Your task to perform on an android device: turn notification dots off Image 0: 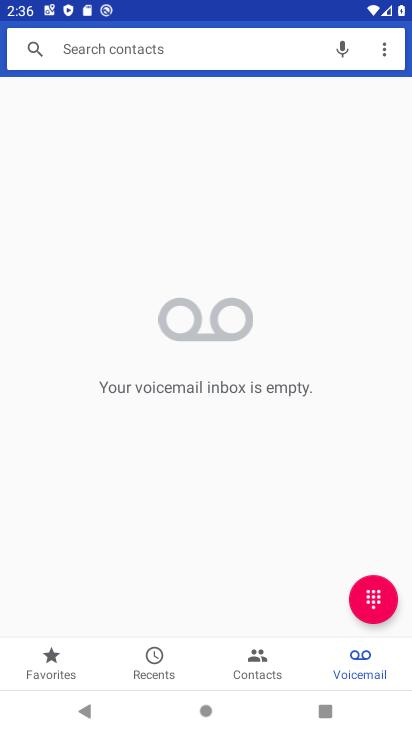
Step 0: press home button
Your task to perform on an android device: turn notification dots off Image 1: 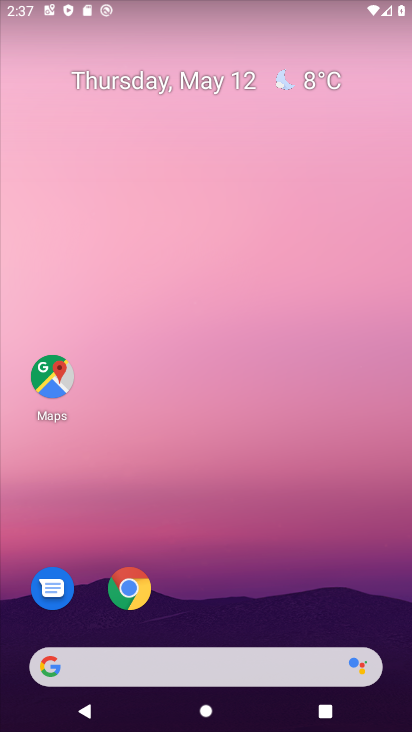
Step 1: drag from (293, 595) to (229, 2)
Your task to perform on an android device: turn notification dots off Image 2: 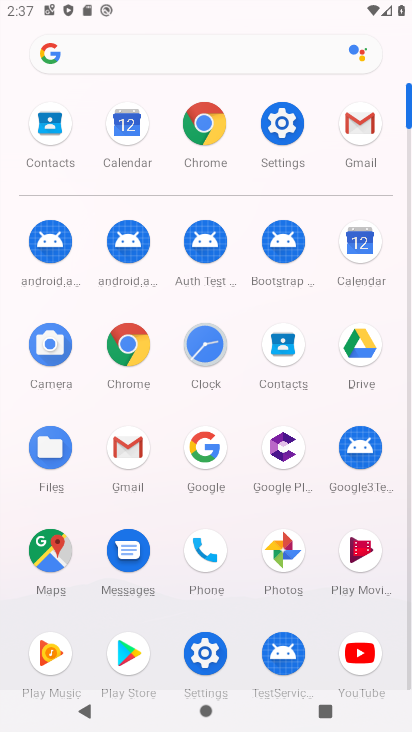
Step 2: click (272, 105)
Your task to perform on an android device: turn notification dots off Image 3: 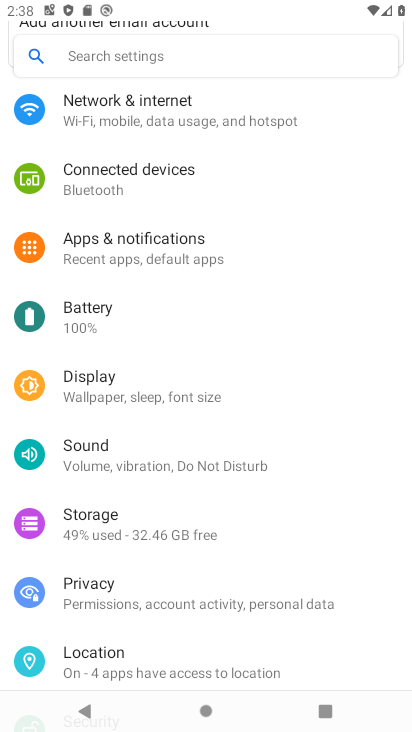
Step 3: click (233, 243)
Your task to perform on an android device: turn notification dots off Image 4: 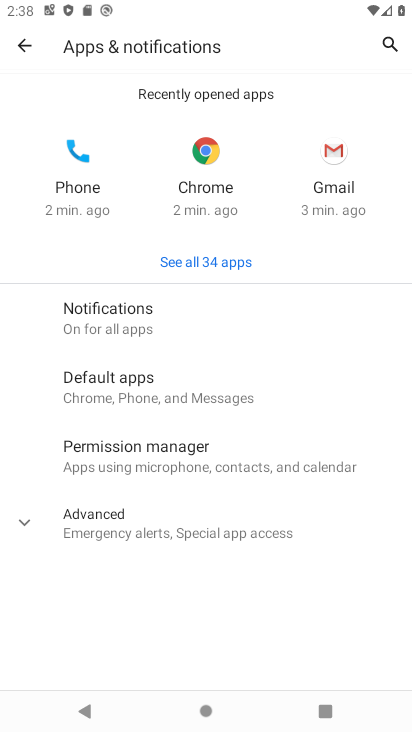
Step 4: click (184, 317)
Your task to perform on an android device: turn notification dots off Image 5: 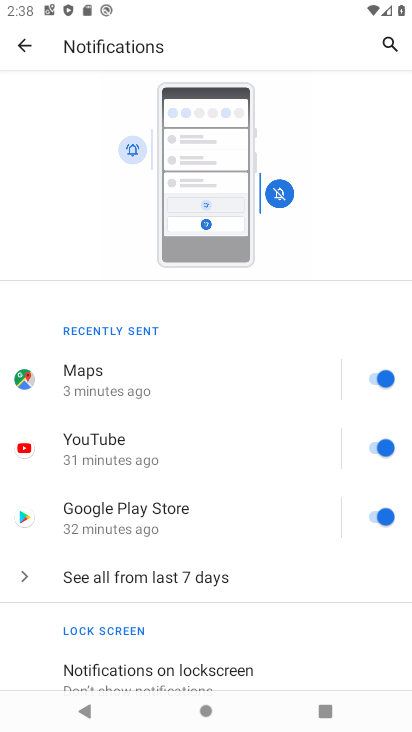
Step 5: drag from (212, 625) to (216, 390)
Your task to perform on an android device: turn notification dots off Image 6: 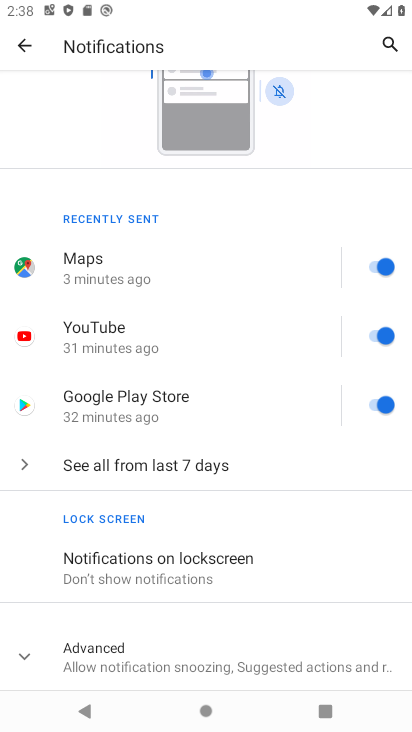
Step 6: click (163, 639)
Your task to perform on an android device: turn notification dots off Image 7: 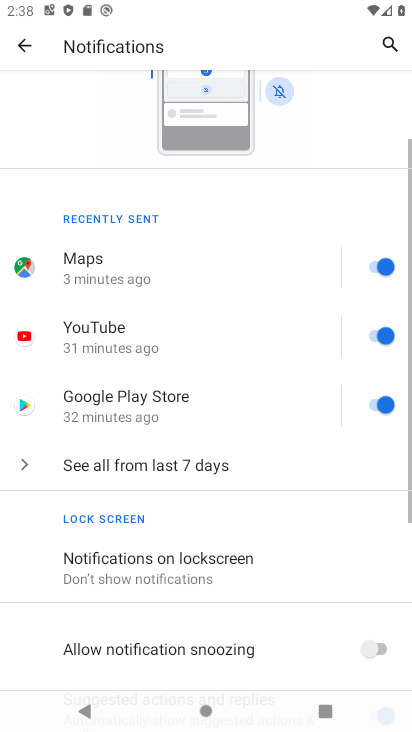
Step 7: drag from (163, 639) to (204, 340)
Your task to perform on an android device: turn notification dots off Image 8: 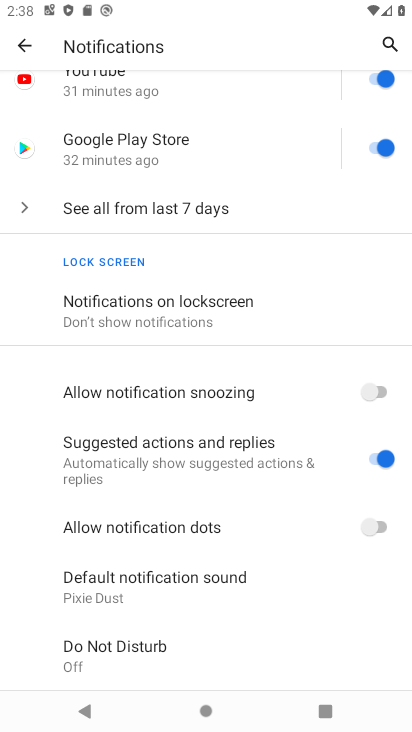
Step 8: click (374, 530)
Your task to perform on an android device: turn notification dots off Image 9: 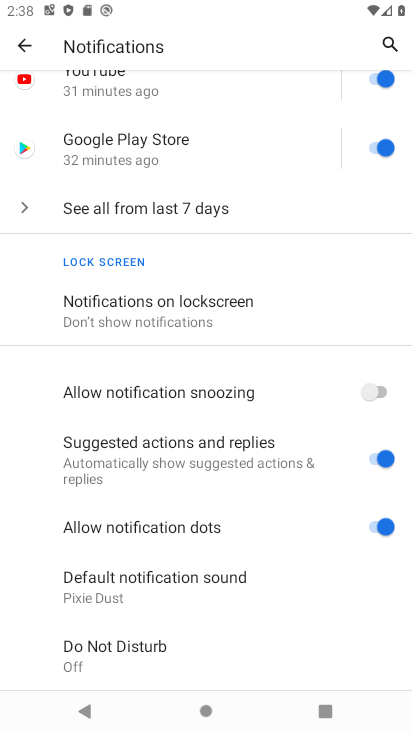
Step 9: task complete